Your task to perform on an android device: Go to CNN.com Image 0: 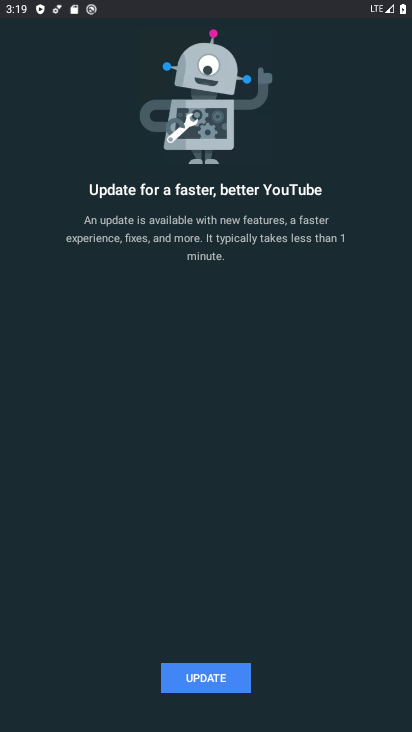
Step 0: press back button
Your task to perform on an android device: Go to CNN.com Image 1: 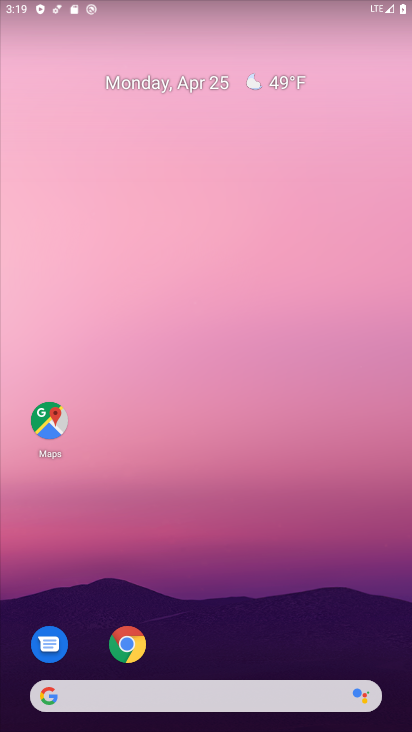
Step 1: click (123, 636)
Your task to perform on an android device: Go to CNN.com Image 2: 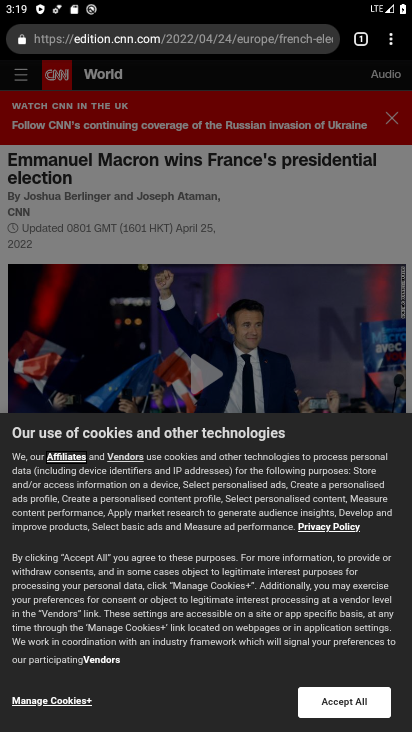
Step 2: task complete